Your task to perform on an android device: change keyboard looks Image 0: 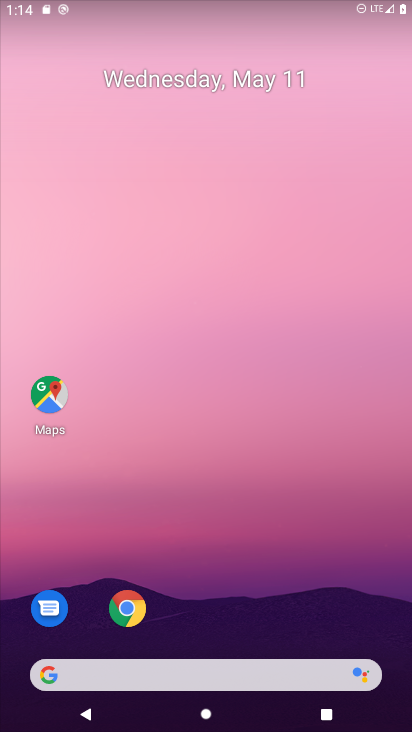
Step 0: drag from (259, 557) to (239, 40)
Your task to perform on an android device: change keyboard looks Image 1: 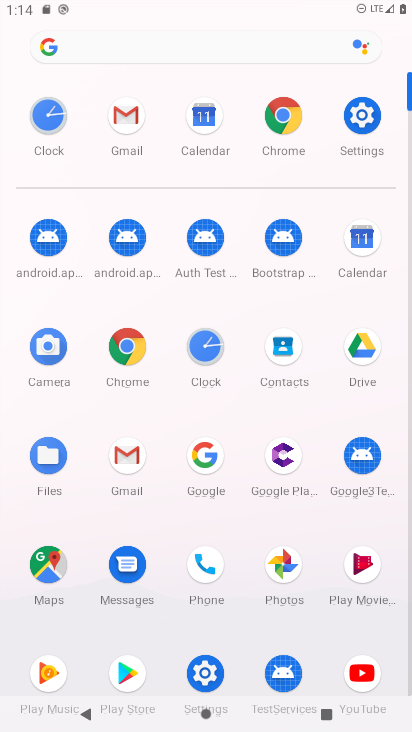
Step 1: click (358, 110)
Your task to perform on an android device: change keyboard looks Image 2: 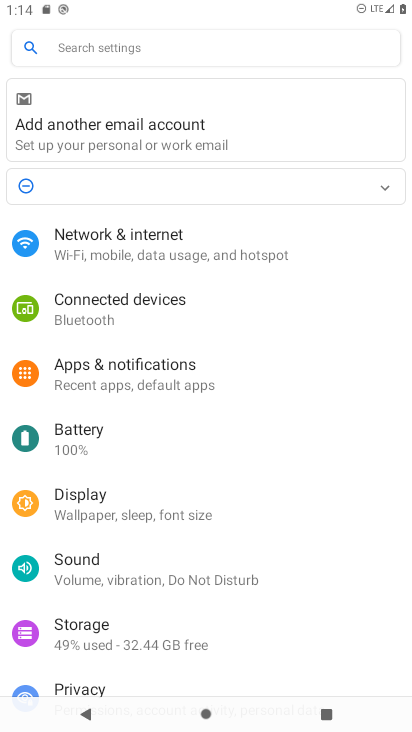
Step 2: drag from (226, 596) to (208, 128)
Your task to perform on an android device: change keyboard looks Image 3: 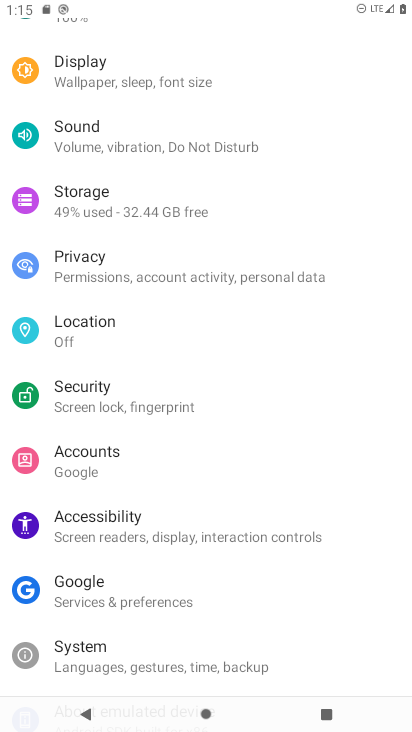
Step 3: click (143, 658)
Your task to perform on an android device: change keyboard looks Image 4: 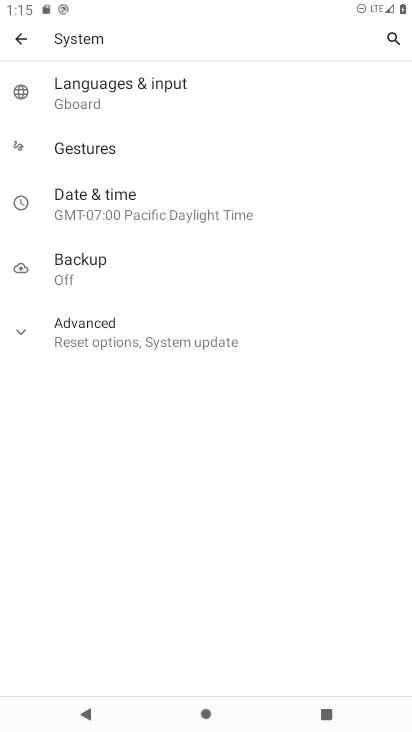
Step 4: click (122, 98)
Your task to perform on an android device: change keyboard looks Image 5: 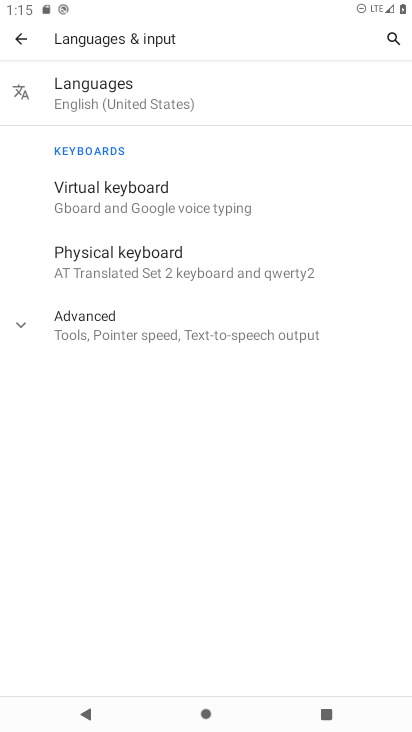
Step 5: click (129, 191)
Your task to perform on an android device: change keyboard looks Image 6: 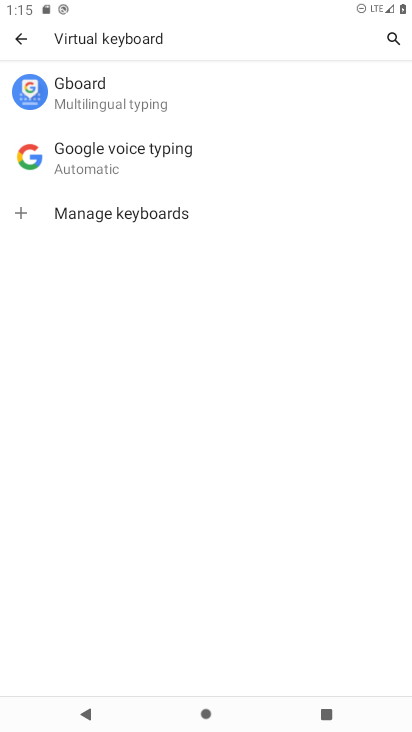
Step 6: click (123, 89)
Your task to perform on an android device: change keyboard looks Image 7: 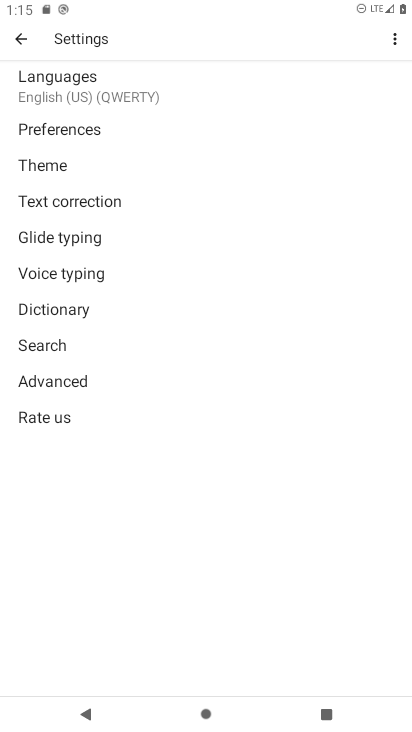
Step 7: click (52, 162)
Your task to perform on an android device: change keyboard looks Image 8: 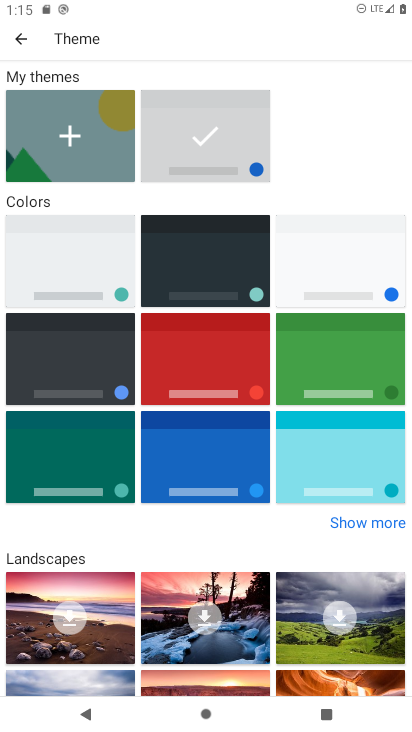
Step 8: click (115, 250)
Your task to perform on an android device: change keyboard looks Image 9: 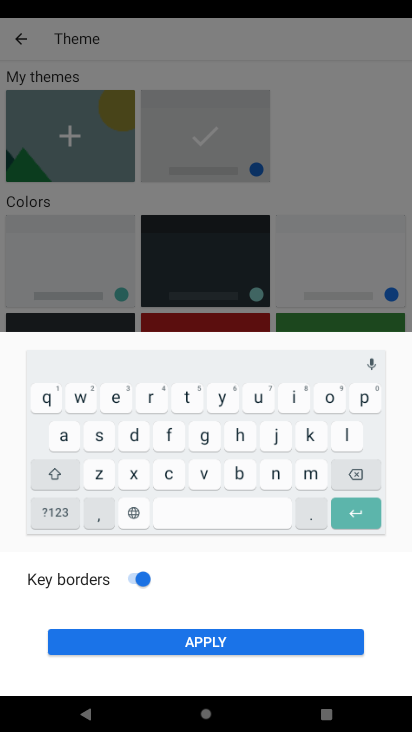
Step 9: click (221, 634)
Your task to perform on an android device: change keyboard looks Image 10: 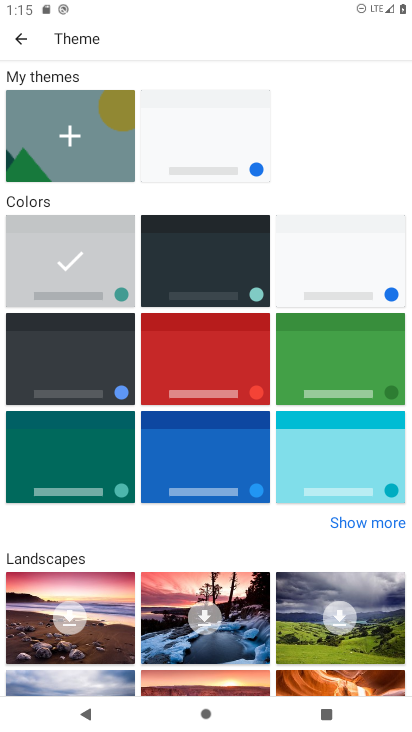
Step 10: task complete